Your task to perform on an android device: turn pop-ups on in chrome Image 0: 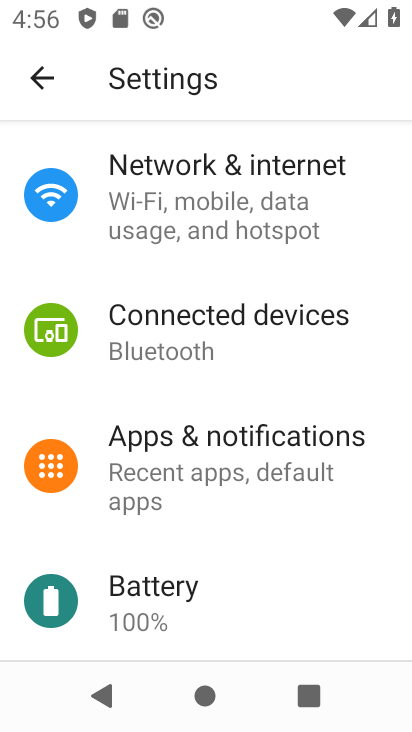
Step 0: press back button
Your task to perform on an android device: turn pop-ups on in chrome Image 1: 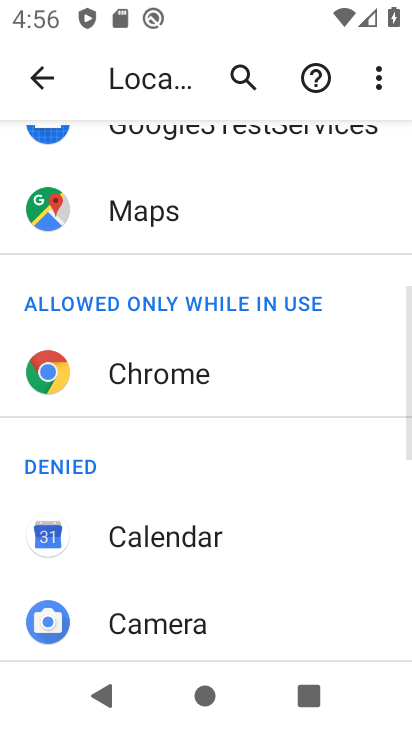
Step 1: press back button
Your task to perform on an android device: turn pop-ups on in chrome Image 2: 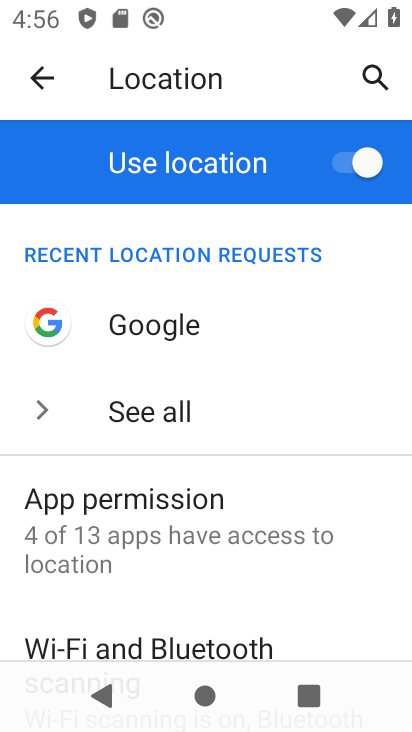
Step 2: press back button
Your task to perform on an android device: turn pop-ups on in chrome Image 3: 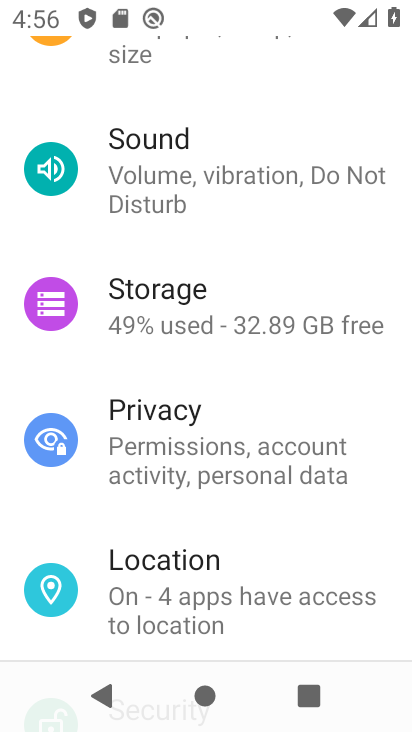
Step 3: press back button
Your task to perform on an android device: turn pop-ups on in chrome Image 4: 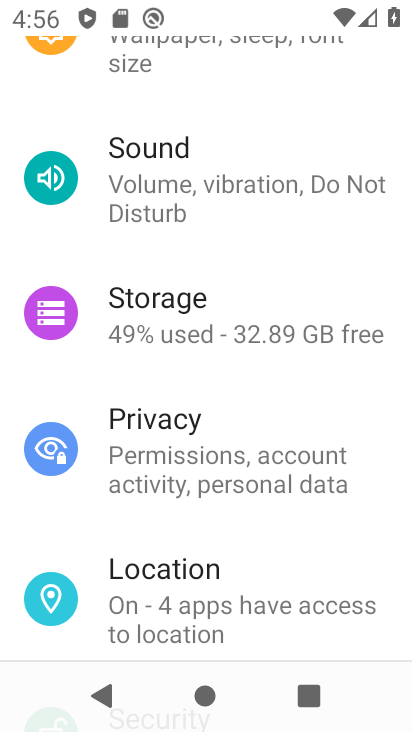
Step 4: press back button
Your task to perform on an android device: turn pop-ups on in chrome Image 5: 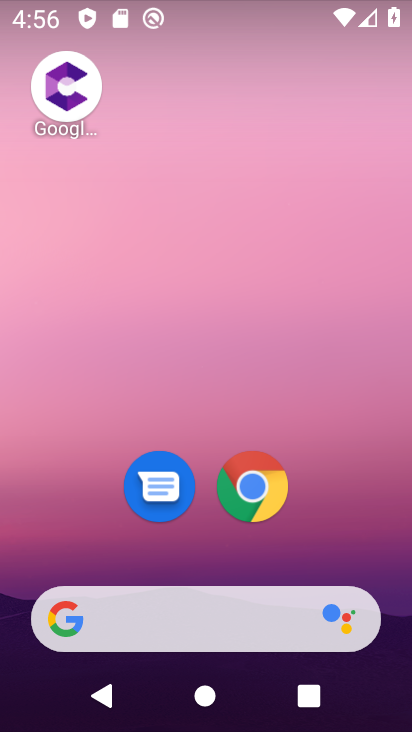
Step 5: click (265, 484)
Your task to perform on an android device: turn pop-ups on in chrome Image 6: 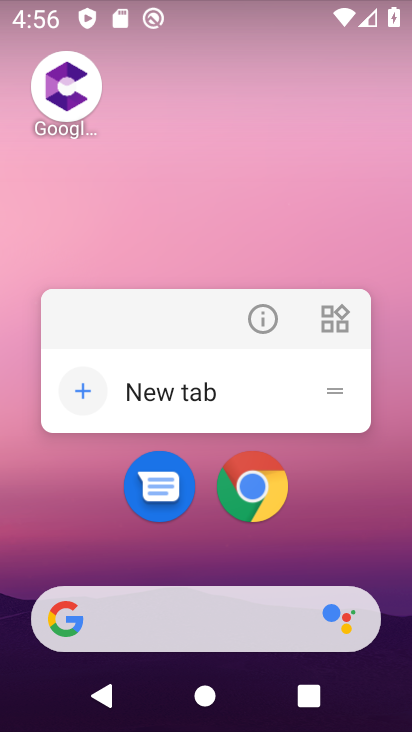
Step 6: click (241, 479)
Your task to perform on an android device: turn pop-ups on in chrome Image 7: 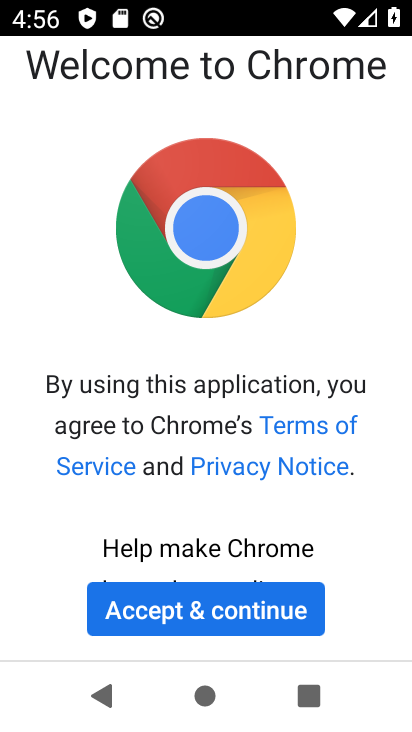
Step 7: click (206, 621)
Your task to perform on an android device: turn pop-ups on in chrome Image 8: 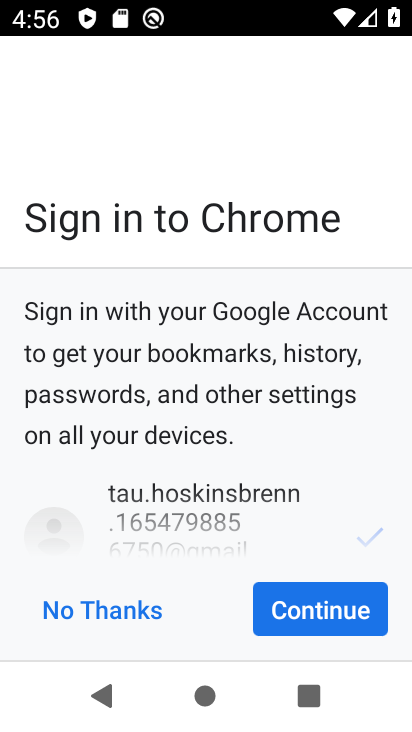
Step 8: click (331, 605)
Your task to perform on an android device: turn pop-ups on in chrome Image 9: 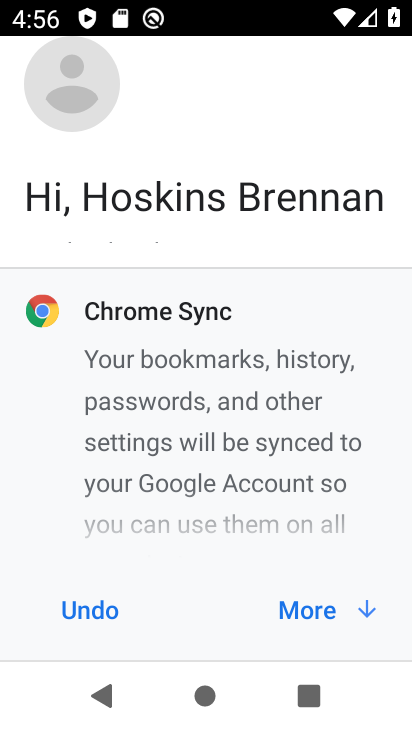
Step 9: click (316, 610)
Your task to perform on an android device: turn pop-ups on in chrome Image 10: 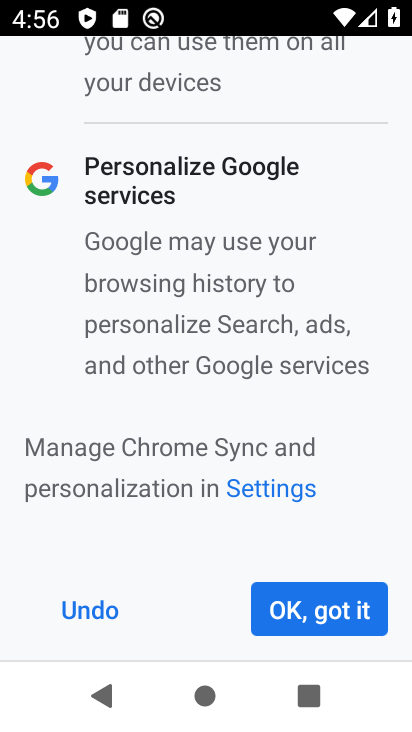
Step 10: click (316, 610)
Your task to perform on an android device: turn pop-ups on in chrome Image 11: 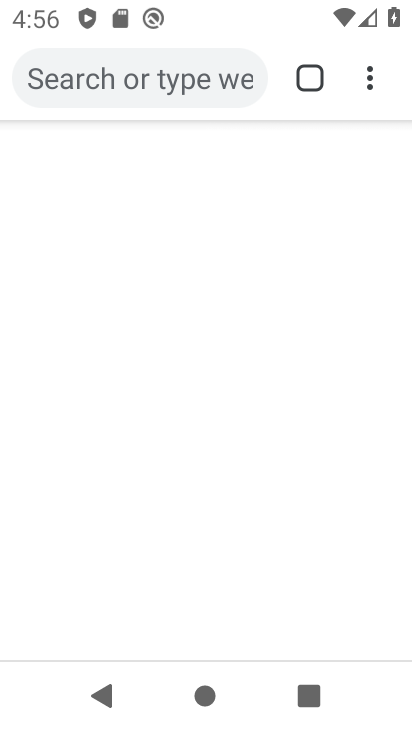
Step 11: drag from (372, 75) to (171, 549)
Your task to perform on an android device: turn pop-ups on in chrome Image 12: 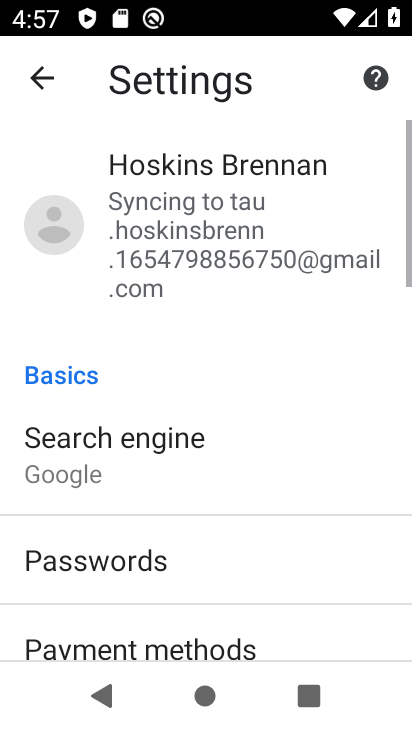
Step 12: drag from (186, 595) to (259, 19)
Your task to perform on an android device: turn pop-ups on in chrome Image 13: 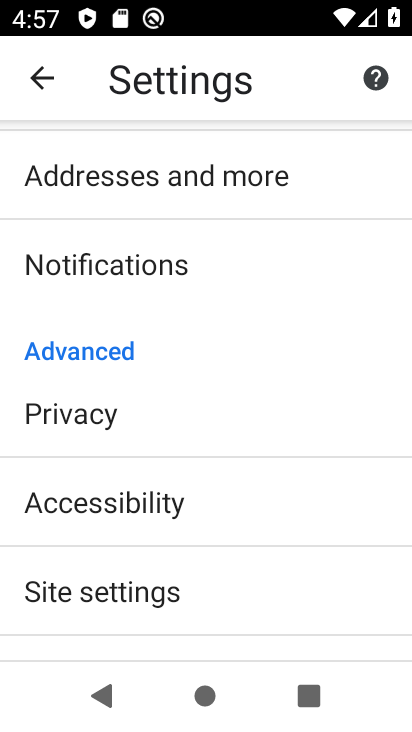
Step 13: click (169, 582)
Your task to perform on an android device: turn pop-ups on in chrome Image 14: 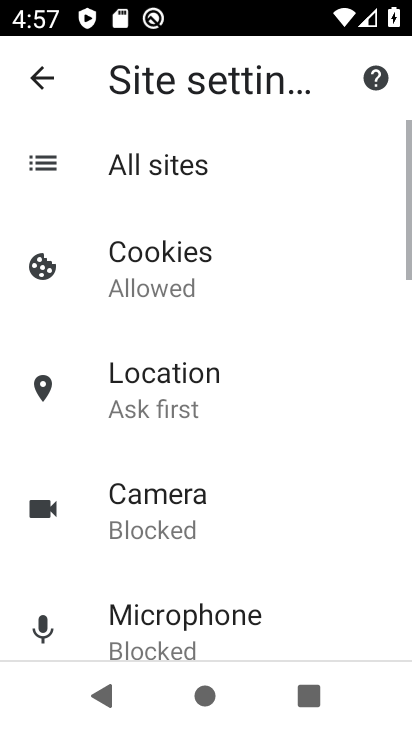
Step 14: drag from (164, 608) to (224, 66)
Your task to perform on an android device: turn pop-ups on in chrome Image 15: 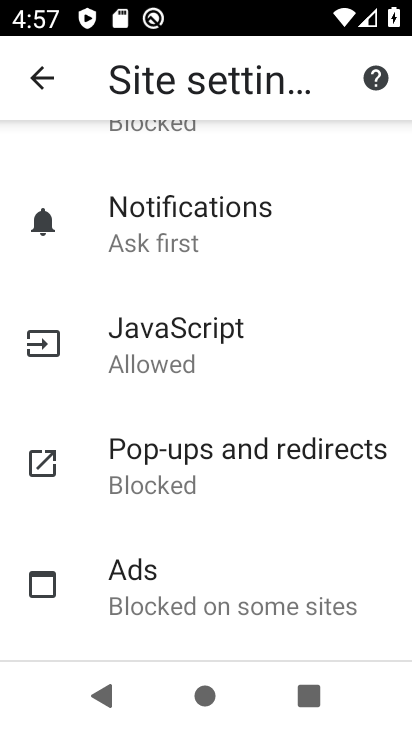
Step 15: click (146, 480)
Your task to perform on an android device: turn pop-ups on in chrome Image 16: 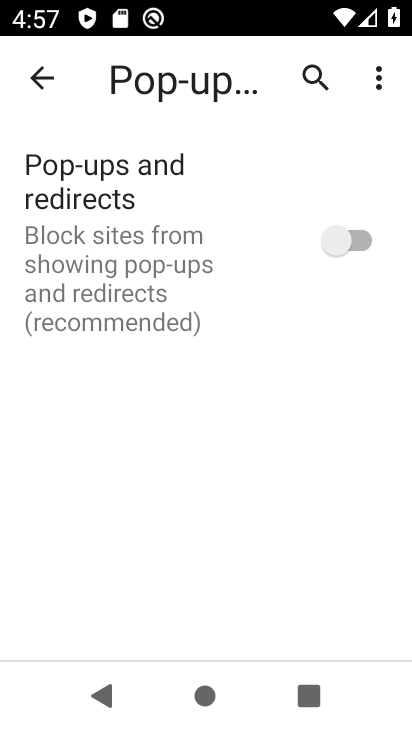
Step 16: click (338, 239)
Your task to perform on an android device: turn pop-ups on in chrome Image 17: 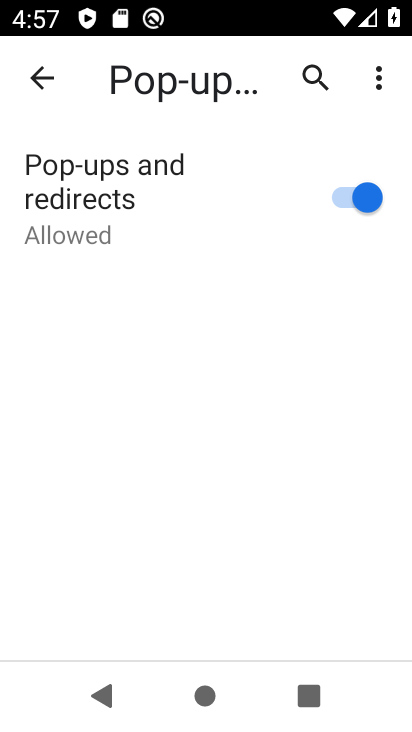
Step 17: task complete